Your task to perform on an android device: Open the stopwatch Image 0: 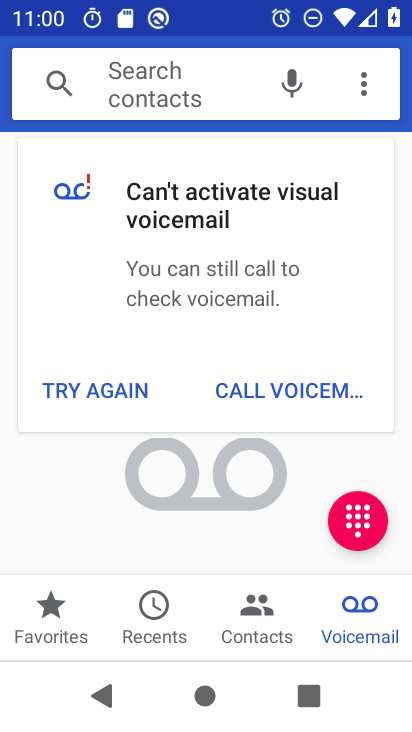
Step 0: press home button
Your task to perform on an android device: Open the stopwatch Image 1: 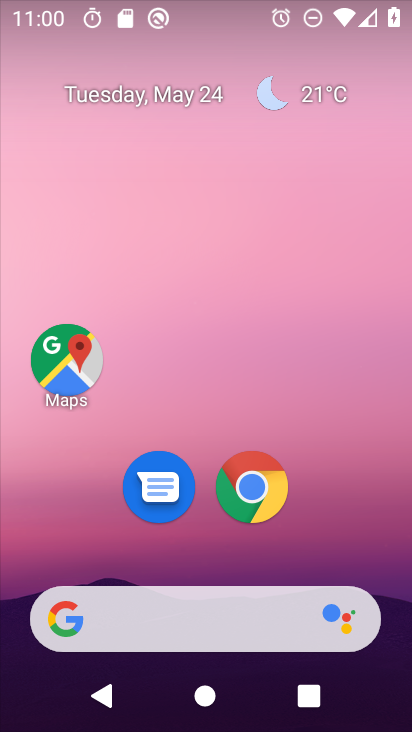
Step 1: drag from (340, 561) to (334, 4)
Your task to perform on an android device: Open the stopwatch Image 2: 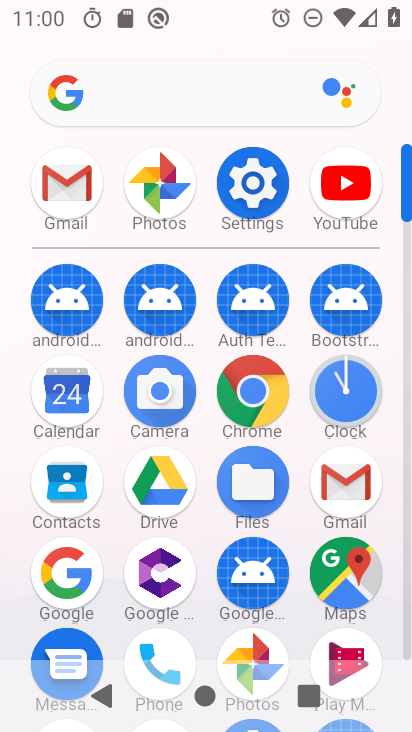
Step 2: click (337, 394)
Your task to perform on an android device: Open the stopwatch Image 3: 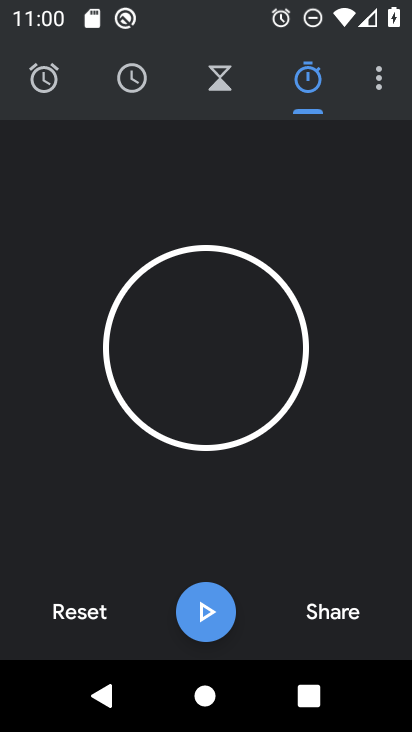
Step 3: task complete